Your task to perform on an android device: Open privacy settings Image 0: 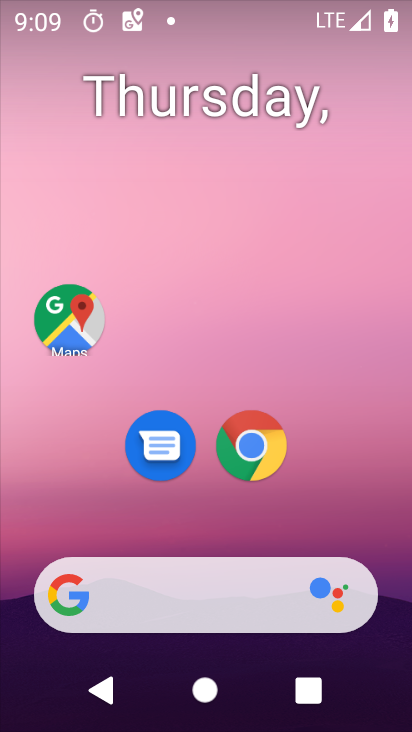
Step 0: drag from (177, 550) to (201, 160)
Your task to perform on an android device: Open privacy settings Image 1: 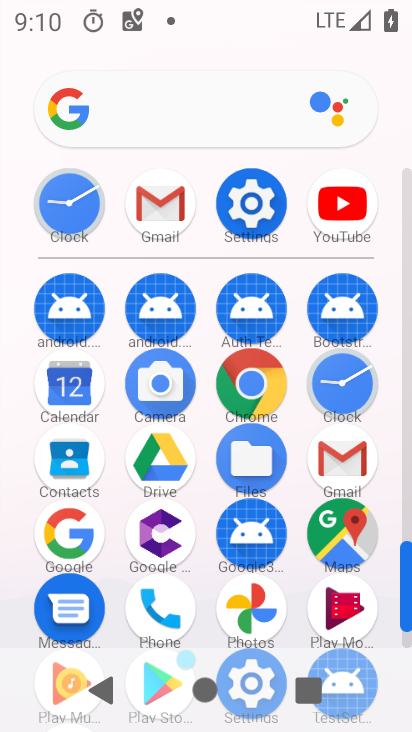
Step 1: click (237, 226)
Your task to perform on an android device: Open privacy settings Image 2: 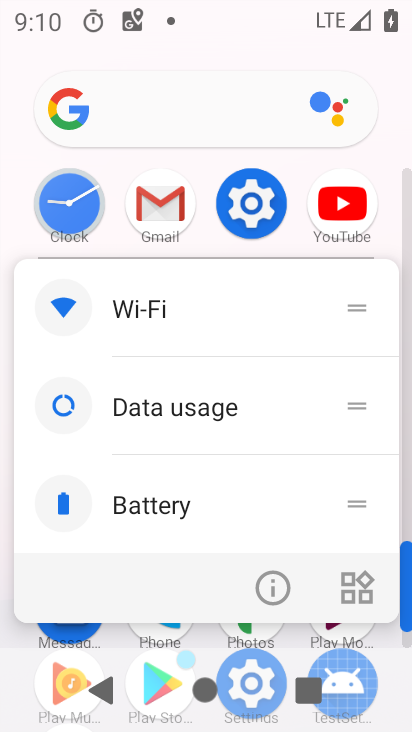
Step 2: click (273, 590)
Your task to perform on an android device: Open privacy settings Image 3: 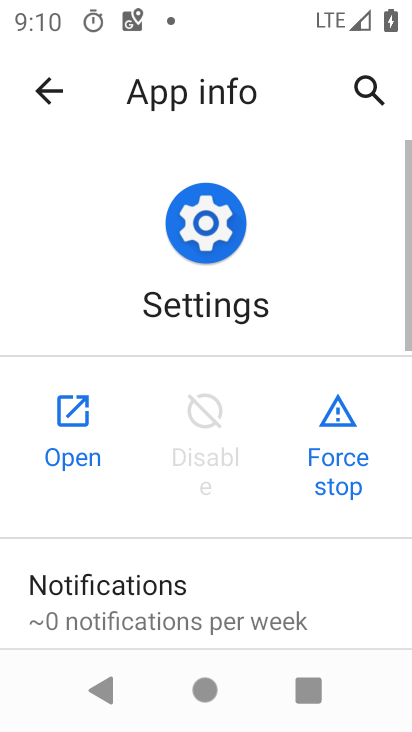
Step 3: click (63, 418)
Your task to perform on an android device: Open privacy settings Image 4: 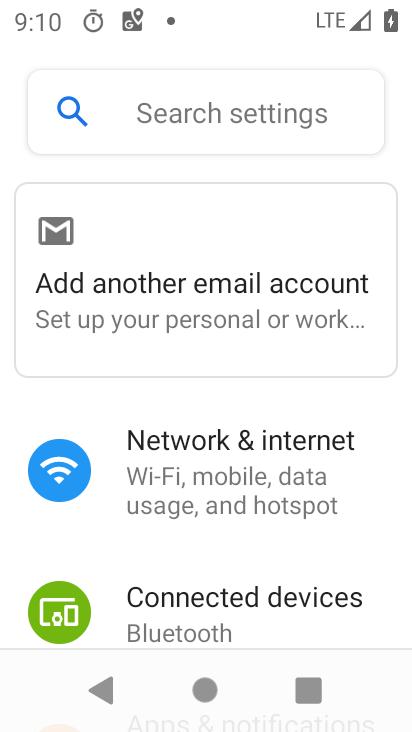
Step 4: drag from (223, 586) to (273, 138)
Your task to perform on an android device: Open privacy settings Image 5: 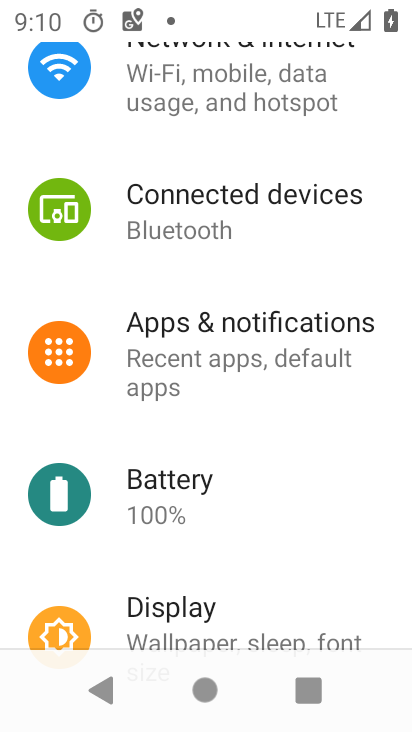
Step 5: drag from (241, 612) to (310, 246)
Your task to perform on an android device: Open privacy settings Image 6: 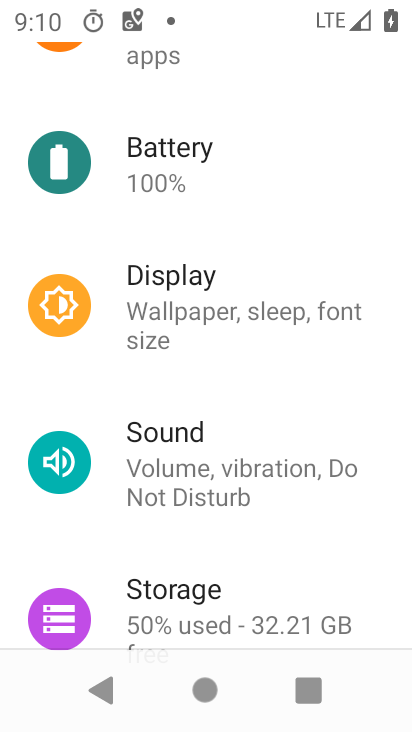
Step 6: drag from (237, 476) to (324, 188)
Your task to perform on an android device: Open privacy settings Image 7: 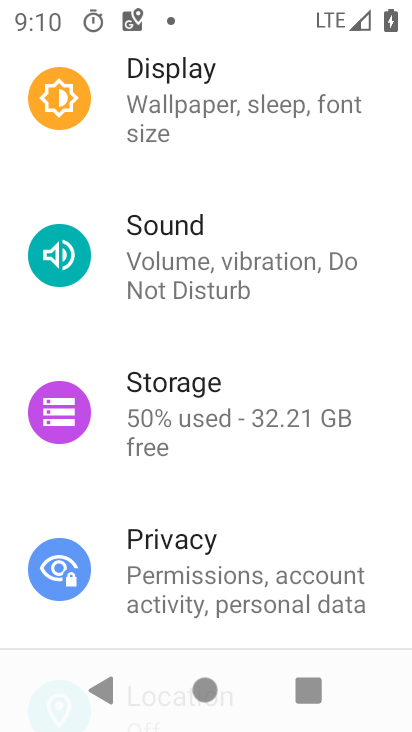
Step 7: click (219, 525)
Your task to perform on an android device: Open privacy settings Image 8: 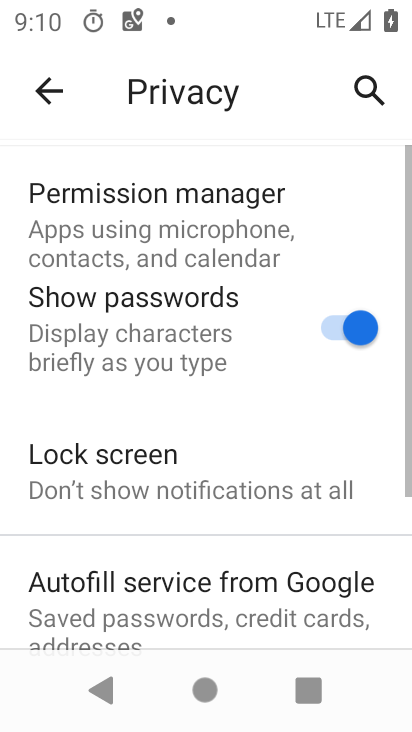
Step 8: task complete